Your task to perform on an android device: turn off javascript in the chrome app Image 0: 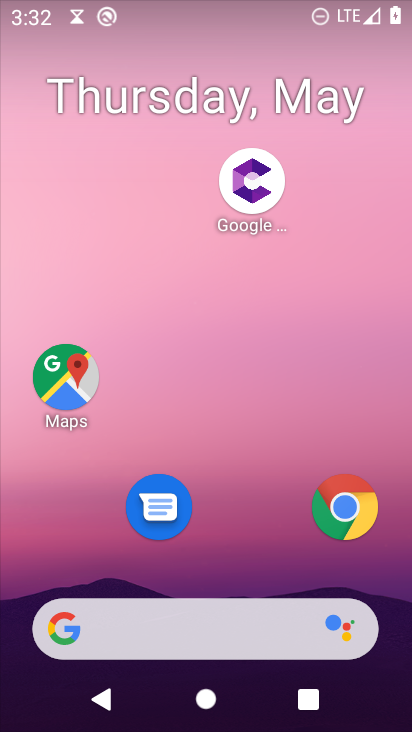
Step 0: press home button
Your task to perform on an android device: turn off javascript in the chrome app Image 1: 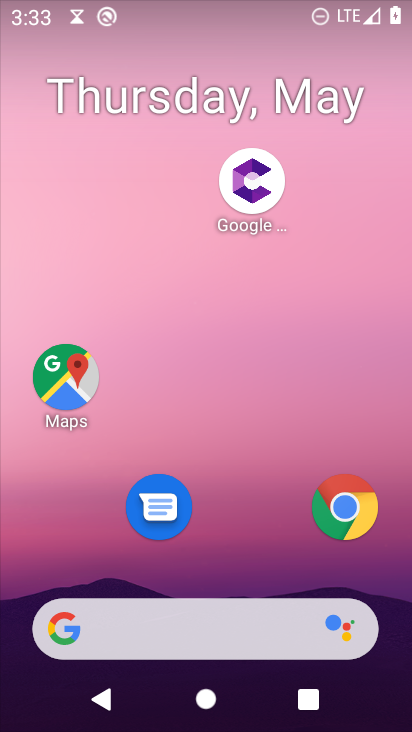
Step 1: click (351, 506)
Your task to perform on an android device: turn off javascript in the chrome app Image 2: 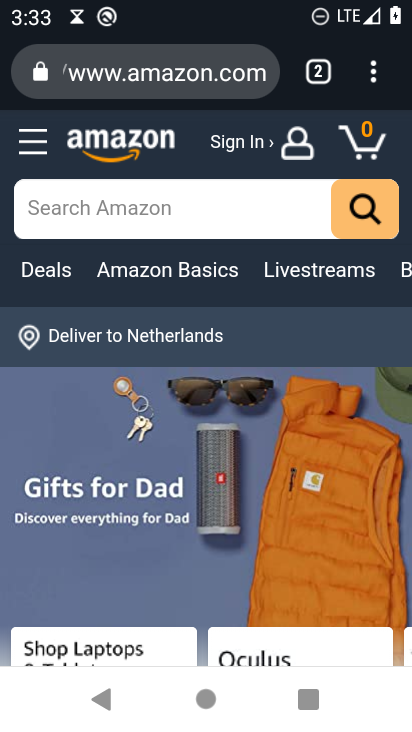
Step 2: drag from (373, 81) to (142, 492)
Your task to perform on an android device: turn off javascript in the chrome app Image 3: 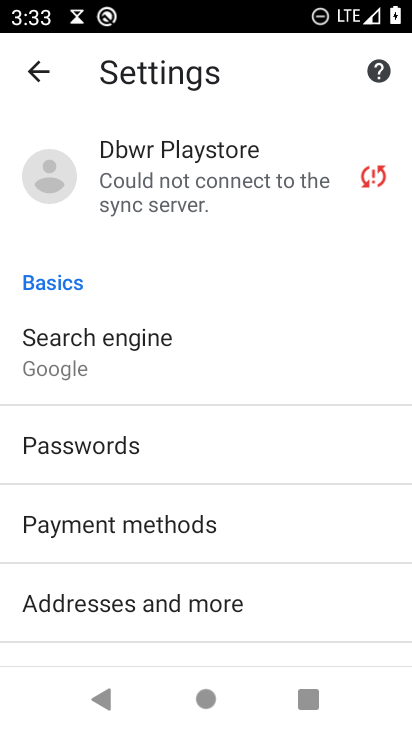
Step 3: drag from (260, 590) to (236, 130)
Your task to perform on an android device: turn off javascript in the chrome app Image 4: 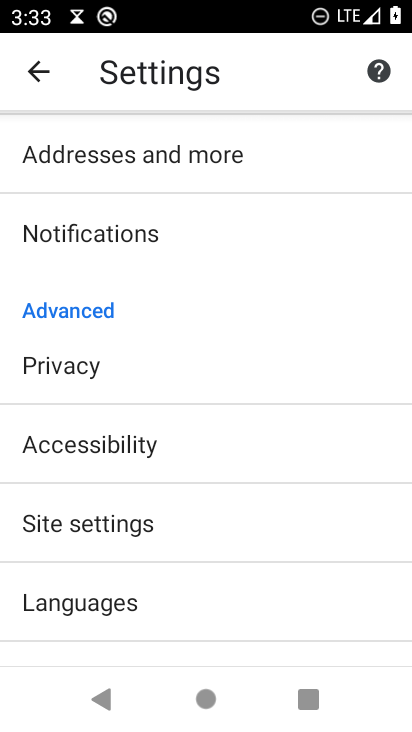
Step 4: click (75, 520)
Your task to perform on an android device: turn off javascript in the chrome app Image 5: 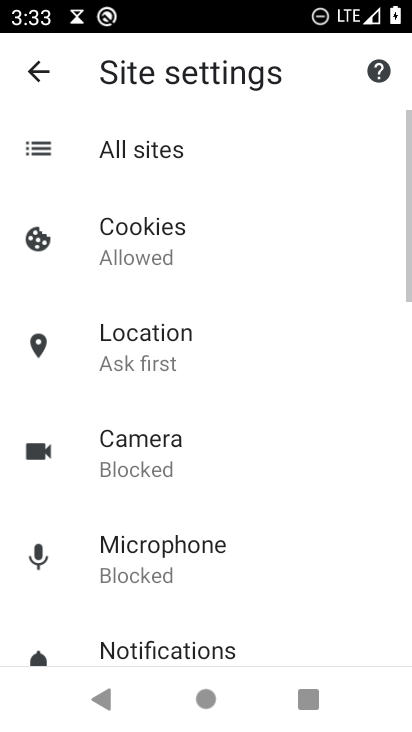
Step 5: drag from (307, 597) to (310, 224)
Your task to perform on an android device: turn off javascript in the chrome app Image 6: 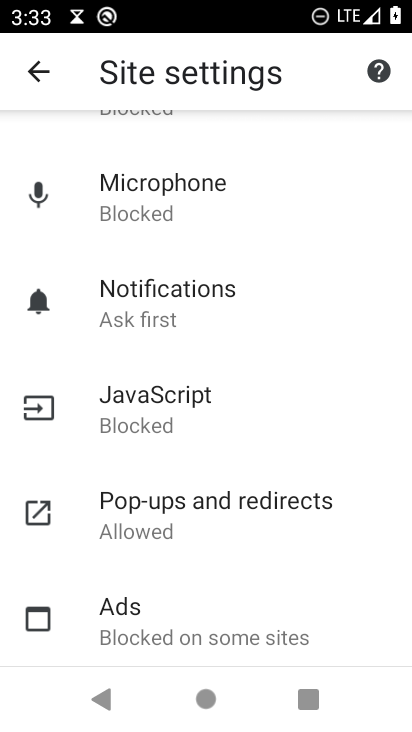
Step 6: click (152, 415)
Your task to perform on an android device: turn off javascript in the chrome app Image 7: 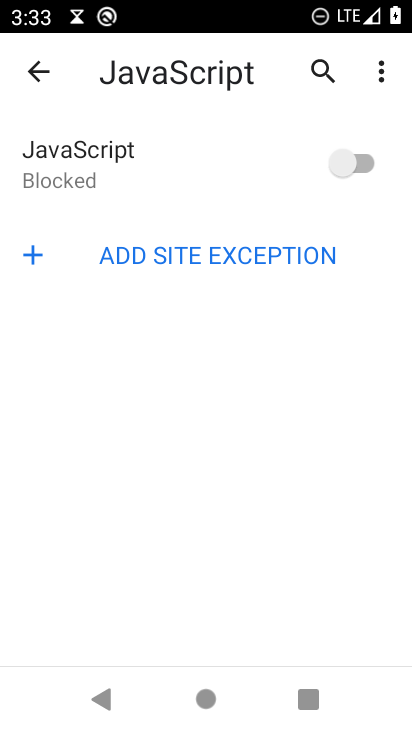
Step 7: task complete